Your task to perform on an android device: toggle translation in the chrome app Image 0: 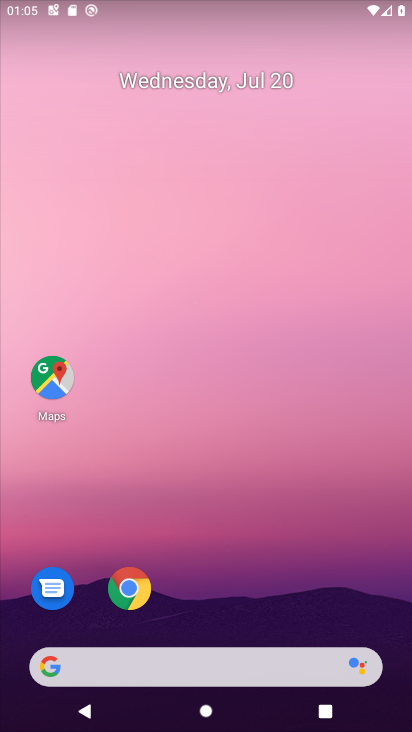
Step 0: drag from (193, 634) to (187, 318)
Your task to perform on an android device: toggle translation in the chrome app Image 1: 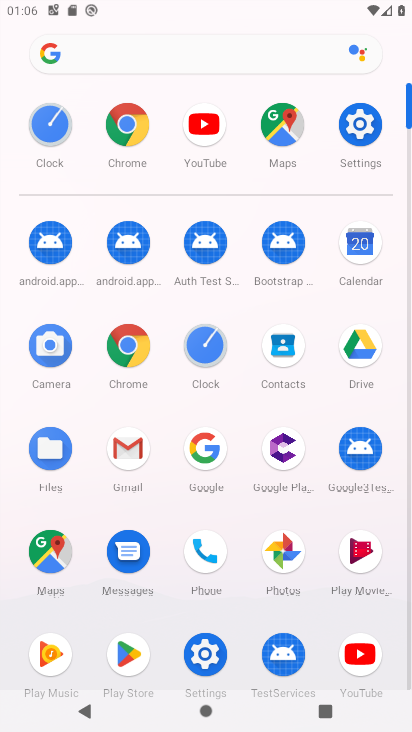
Step 1: click (123, 130)
Your task to perform on an android device: toggle translation in the chrome app Image 2: 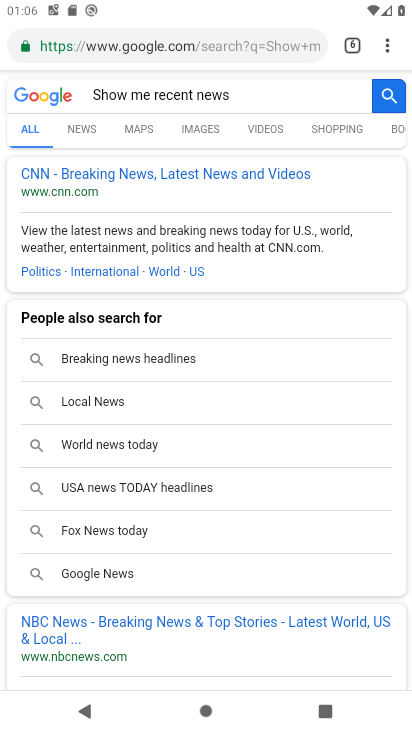
Step 2: click (391, 44)
Your task to perform on an android device: toggle translation in the chrome app Image 3: 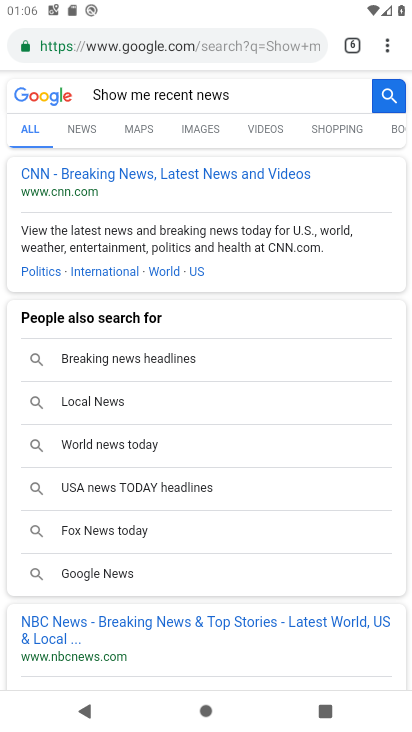
Step 3: click (394, 52)
Your task to perform on an android device: toggle translation in the chrome app Image 4: 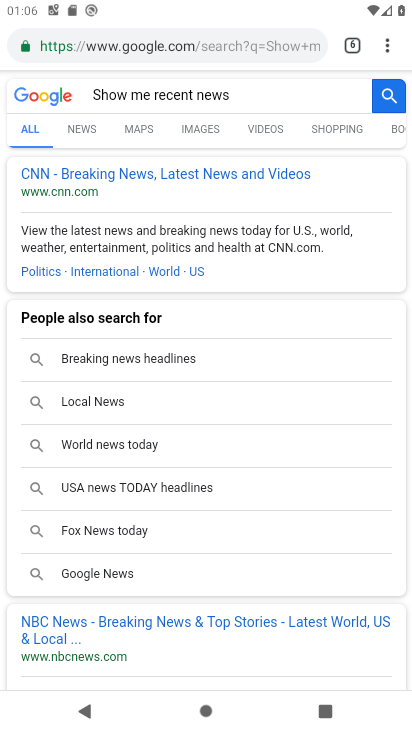
Step 4: click (394, 52)
Your task to perform on an android device: toggle translation in the chrome app Image 5: 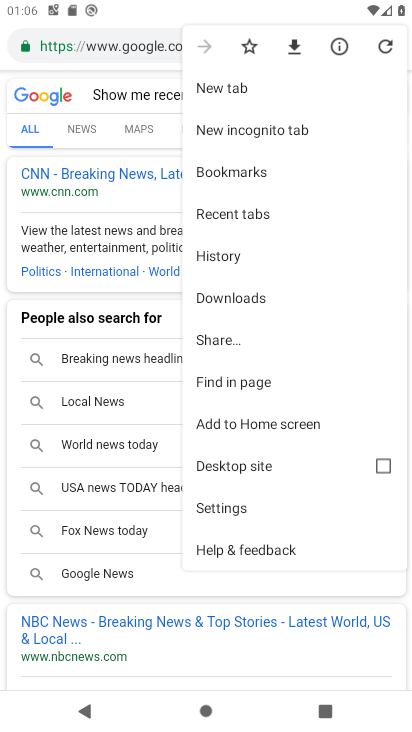
Step 5: click (222, 506)
Your task to perform on an android device: toggle translation in the chrome app Image 6: 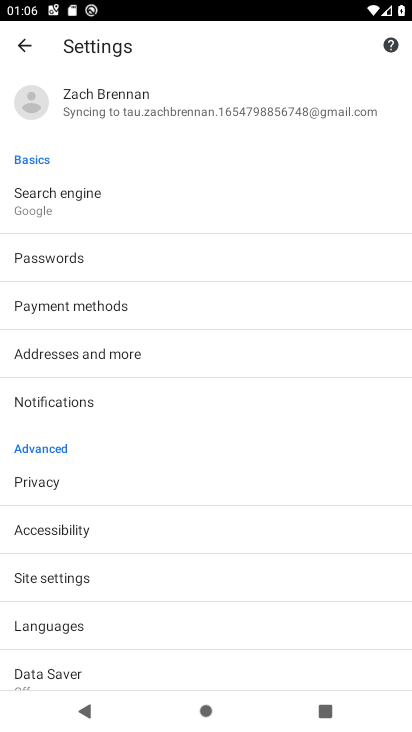
Step 6: click (94, 622)
Your task to perform on an android device: toggle translation in the chrome app Image 7: 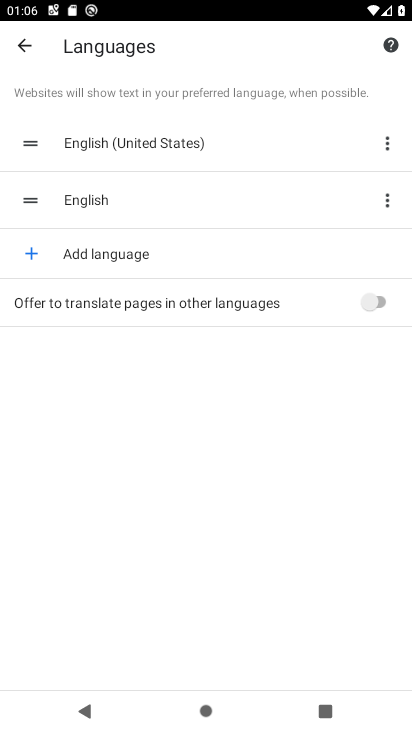
Step 7: click (379, 303)
Your task to perform on an android device: toggle translation in the chrome app Image 8: 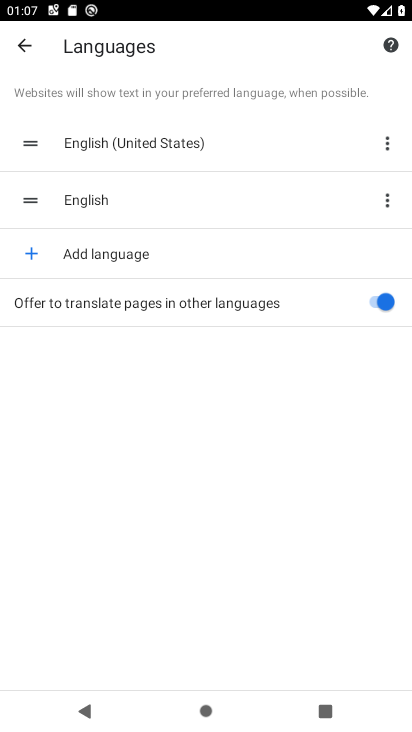
Step 8: task complete